Your task to perform on an android device: change keyboard looks Image 0: 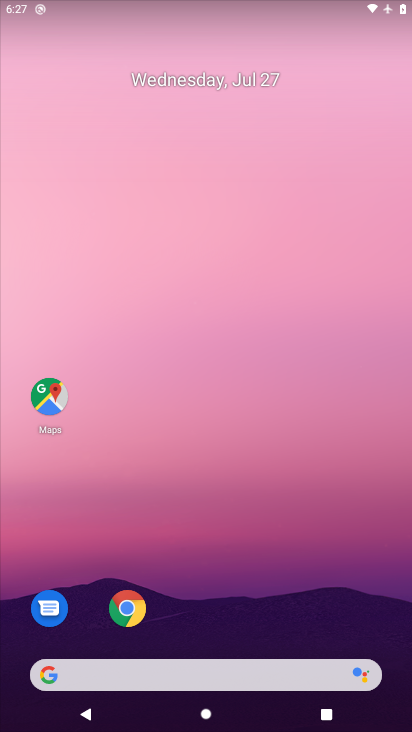
Step 0: press home button
Your task to perform on an android device: change keyboard looks Image 1: 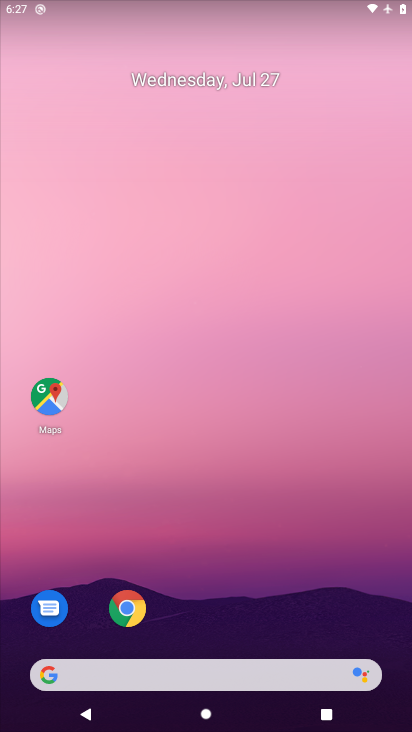
Step 1: drag from (232, 644) to (255, 537)
Your task to perform on an android device: change keyboard looks Image 2: 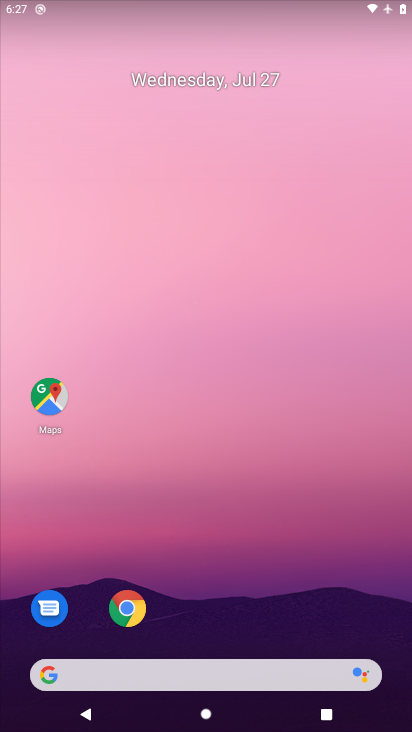
Step 2: drag from (220, 587) to (238, 117)
Your task to perform on an android device: change keyboard looks Image 3: 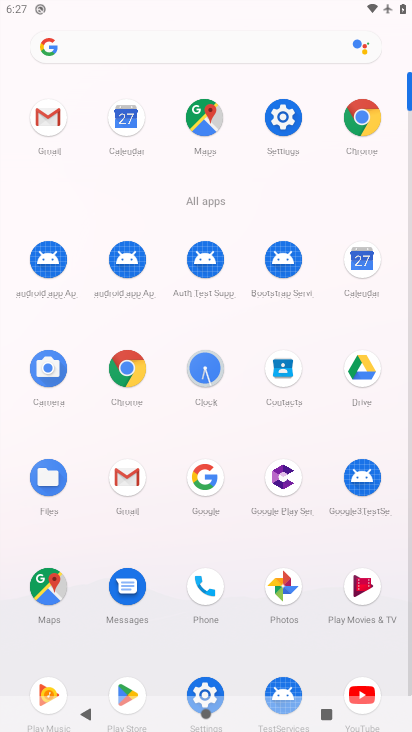
Step 3: click (272, 122)
Your task to perform on an android device: change keyboard looks Image 4: 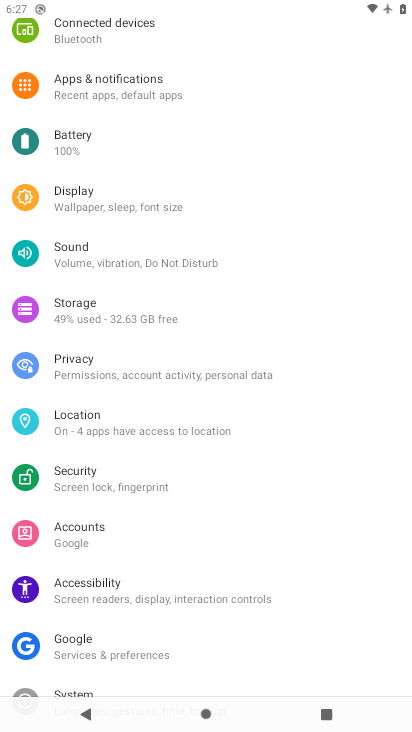
Step 4: click (71, 688)
Your task to perform on an android device: change keyboard looks Image 5: 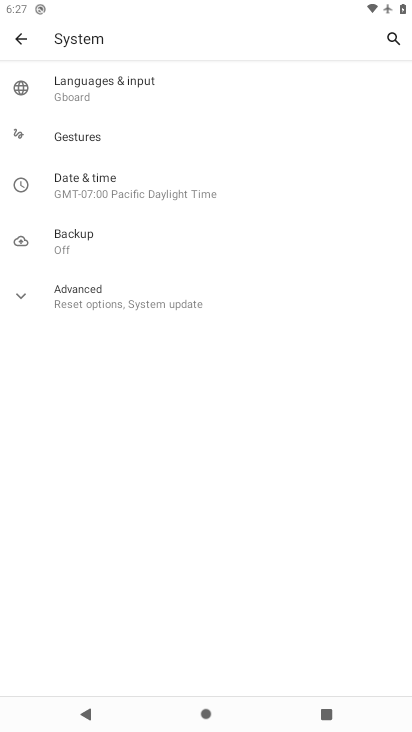
Step 5: click (79, 82)
Your task to perform on an android device: change keyboard looks Image 6: 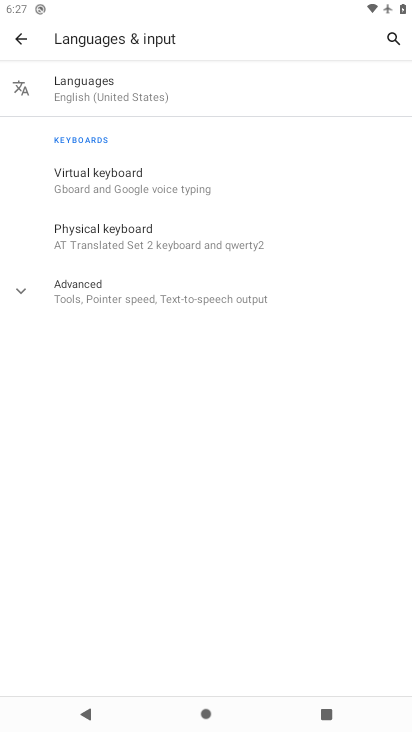
Step 6: click (81, 183)
Your task to perform on an android device: change keyboard looks Image 7: 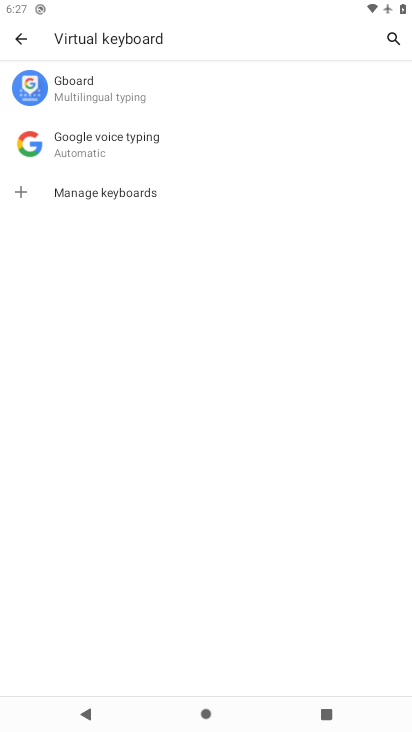
Step 7: click (59, 82)
Your task to perform on an android device: change keyboard looks Image 8: 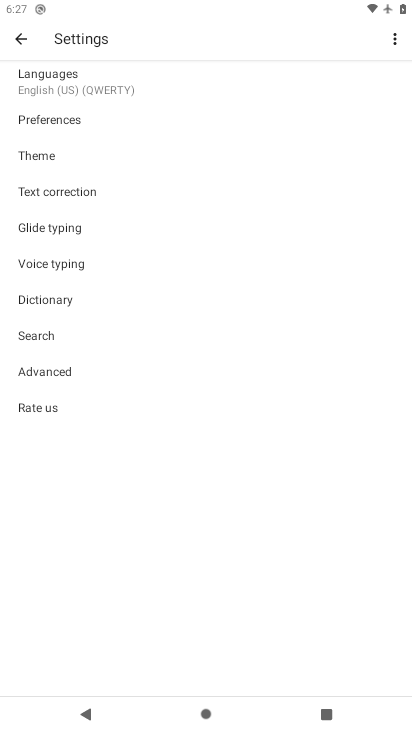
Step 8: click (30, 158)
Your task to perform on an android device: change keyboard looks Image 9: 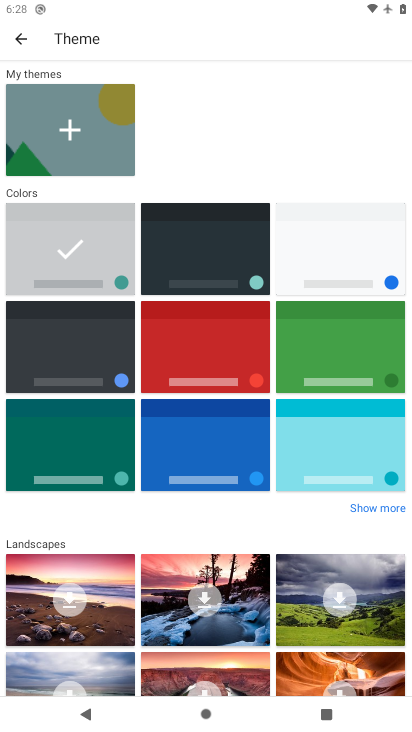
Step 9: click (192, 456)
Your task to perform on an android device: change keyboard looks Image 10: 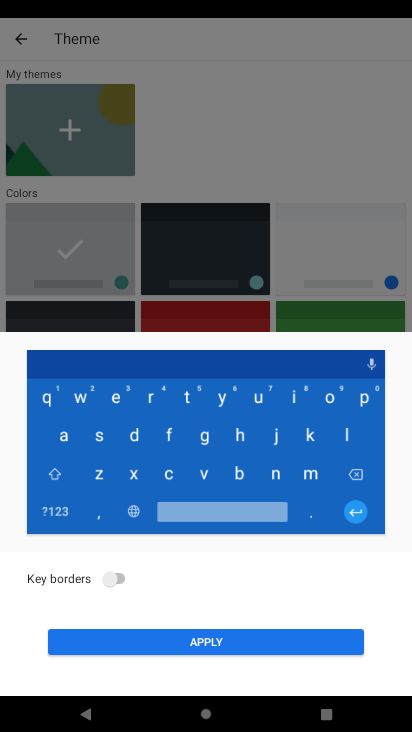
Step 10: click (112, 647)
Your task to perform on an android device: change keyboard looks Image 11: 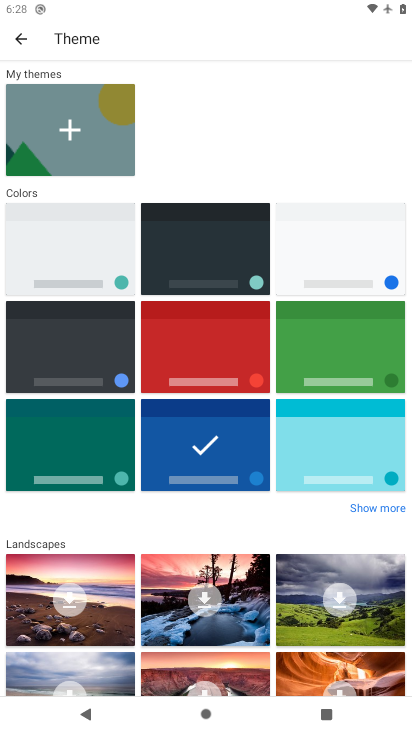
Step 11: press home button
Your task to perform on an android device: change keyboard looks Image 12: 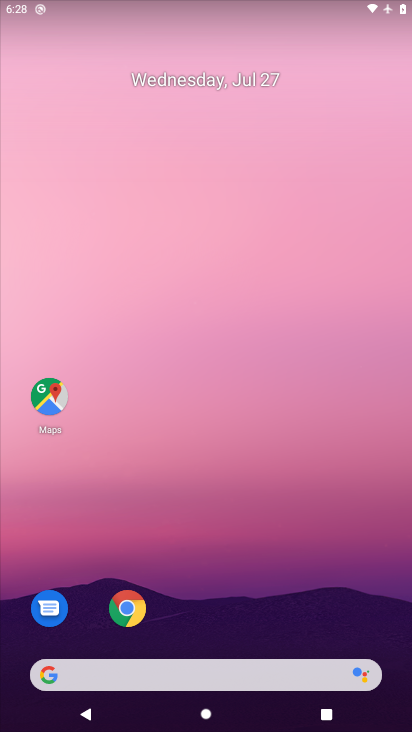
Step 12: drag from (215, 613) to (184, 339)
Your task to perform on an android device: change keyboard looks Image 13: 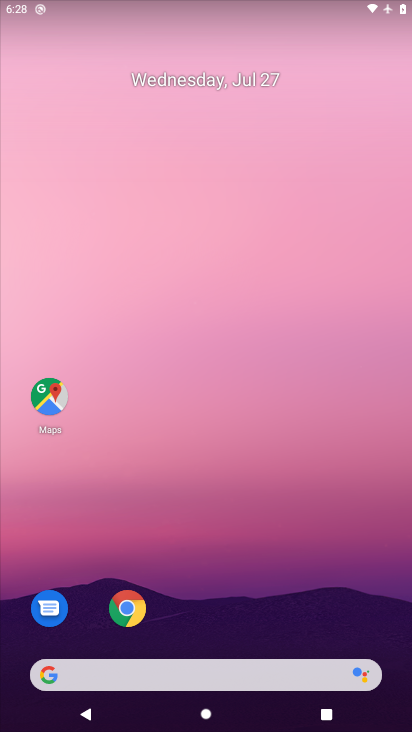
Step 13: drag from (196, 589) to (172, 415)
Your task to perform on an android device: change keyboard looks Image 14: 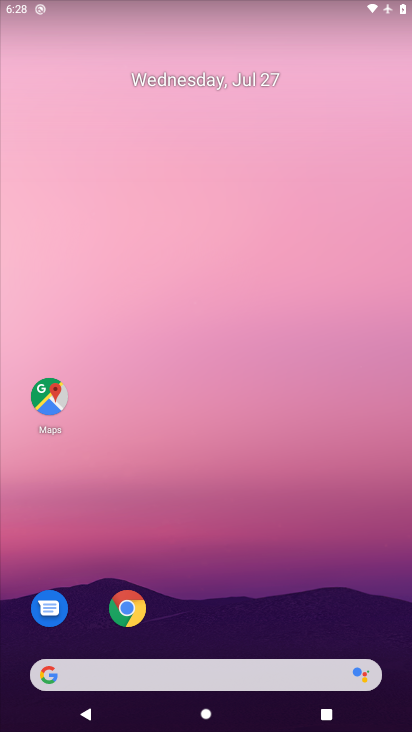
Step 14: drag from (211, 646) to (0, 20)
Your task to perform on an android device: change keyboard looks Image 15: 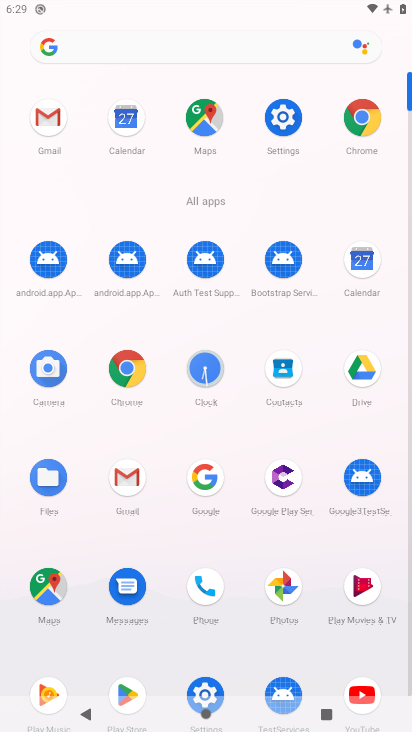
Step 15: click (285, 120)
Your task to perform on an android device: change keyboard looks Image 16: 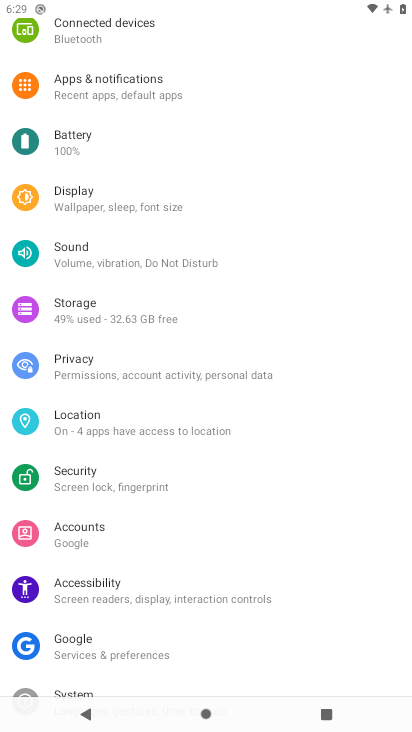
Step 16: click (73, 691)
Your task to perform on an android device: change keyboard looks Image 17: 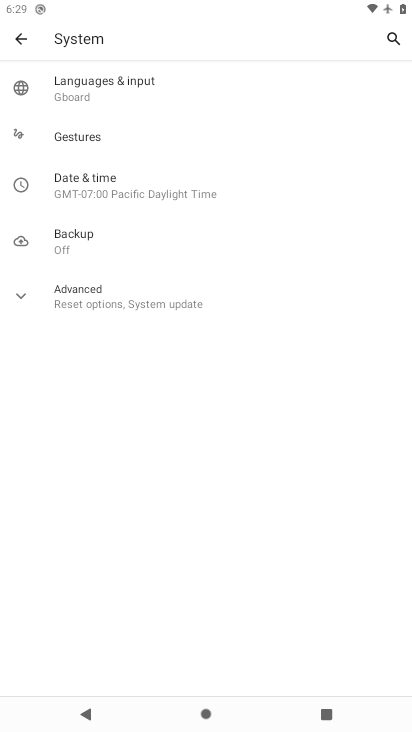
Step 17: click (73, 691)
Your task to perform on an android device: change keyboard looks Image 18: 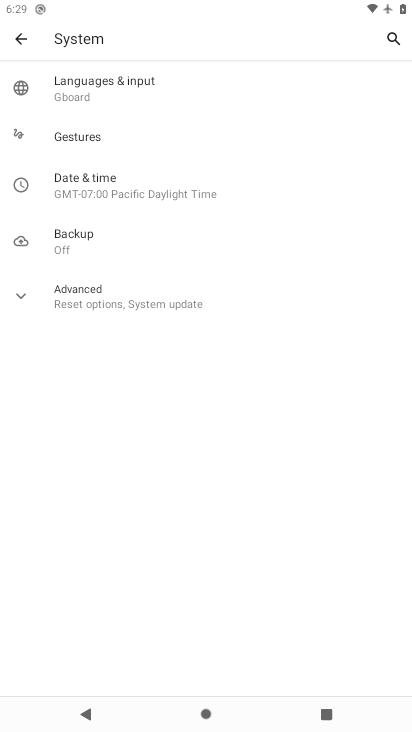
Step 18: click (76, 85)
Your task to perform on an android device: change keyboard looks Image 19: 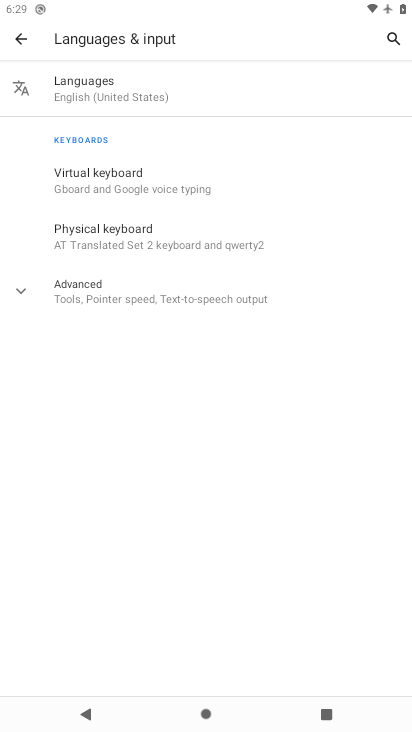
Step 19: click (81, 179)
Your task to perform on an android device: change keyboard looks Image 20: 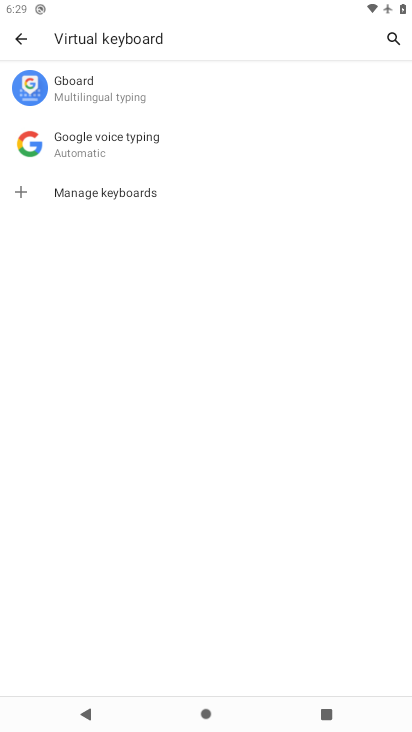
Step 20: click (75, 89)
Your task to perform on an android device: change keyboard looks Image 21: 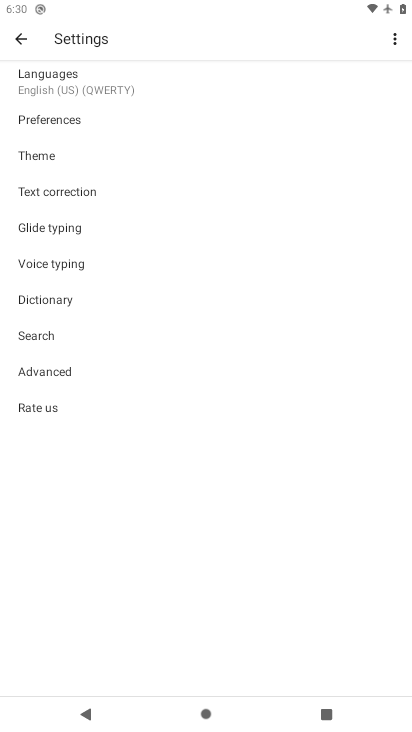
Step 21: click (35, 157)
Your task to perform on an android device: change keyboard looks Image 22: 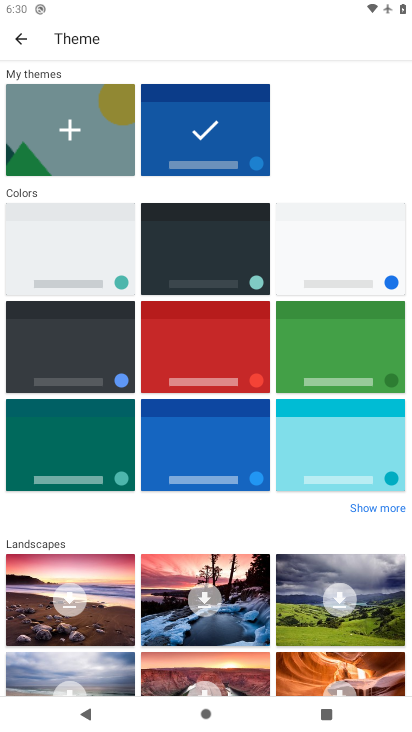
Step 22: click (181, 347)
Your task to perform on an android device: change keyboard looks Image 23: 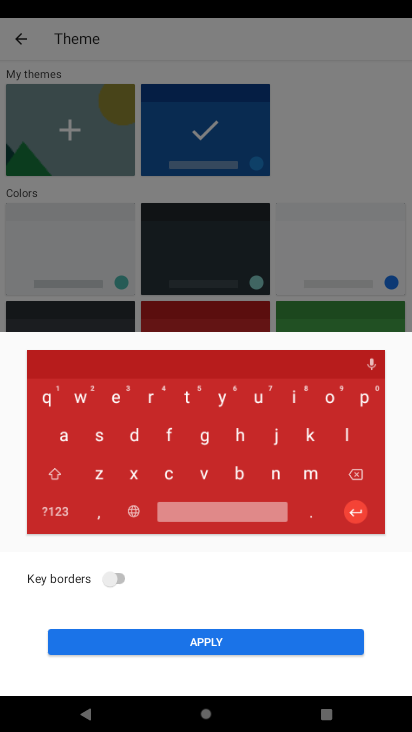
Step 23: click (138, 644)
Your task to perform on an android device: change keyboard looks Image 24: 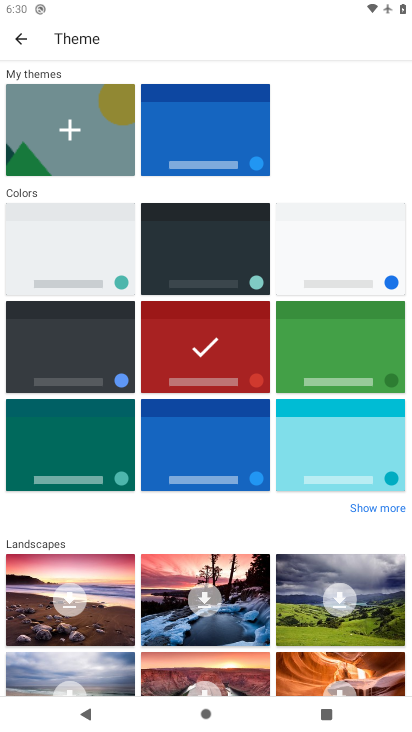
Step 24: task complete